Your task to perform on an android device: turn on priority inbox in the gmail app Image 0: 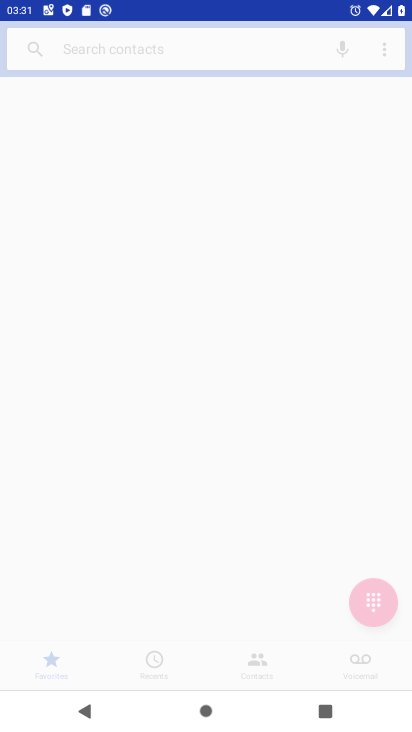
Step 0: drag from (146, 622) to (161, 207)
Your task to perform on an android device: turn on priority inbox in the gmail app Image 1: 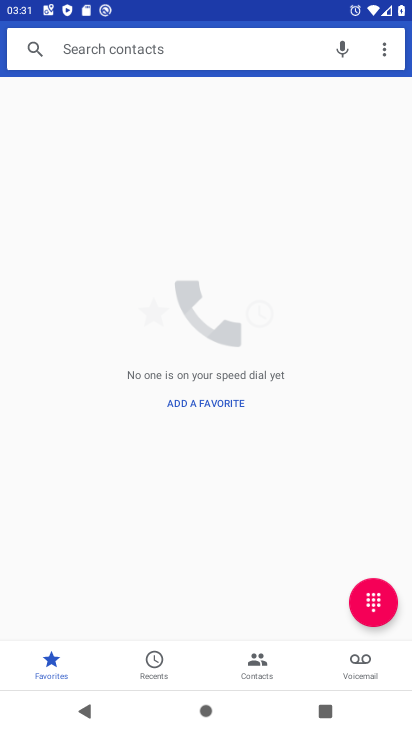
Step 1: press home button
Your task to perform on an android device: turn on priority inbox in the gmail app Image 2: 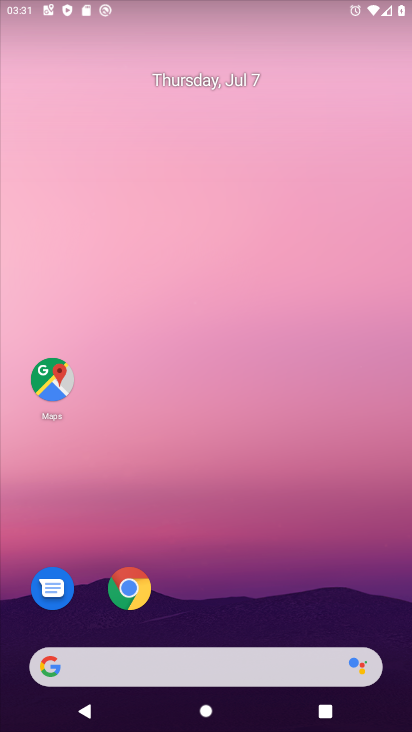
Step 2: drag from (158, 650) to (149, 227)
Your task to perform on an android device: turn on priority inbox in the gmail app Image 3: 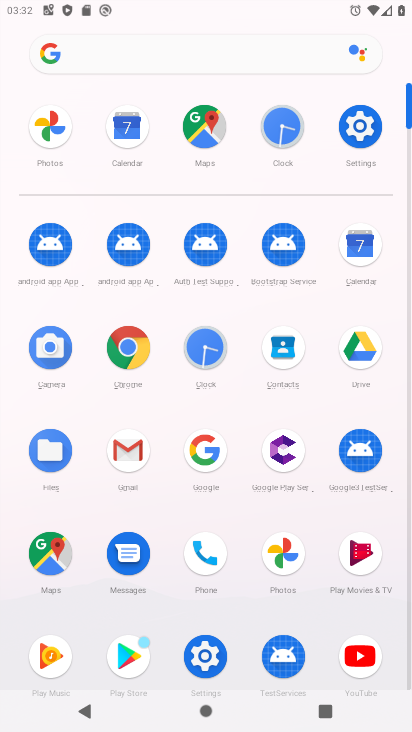
Step 3: click (117, 459)
Your task to perform on an android device: turn on priority inbox in the gmail app Image 4: 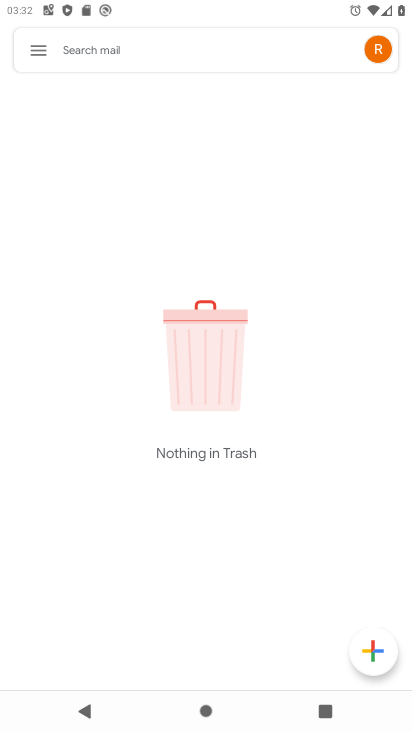
Step 4: click (29, 54)
Your task to perform on an android device: turn on priority inbox in the gmail app Image 5: 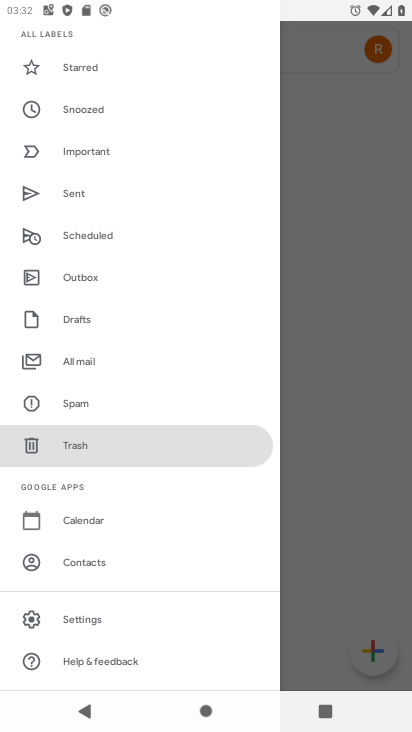
Step 5: click (101, 620)
Your task to perform on an android device: turn on priority inbox in the gmail app Image 6: 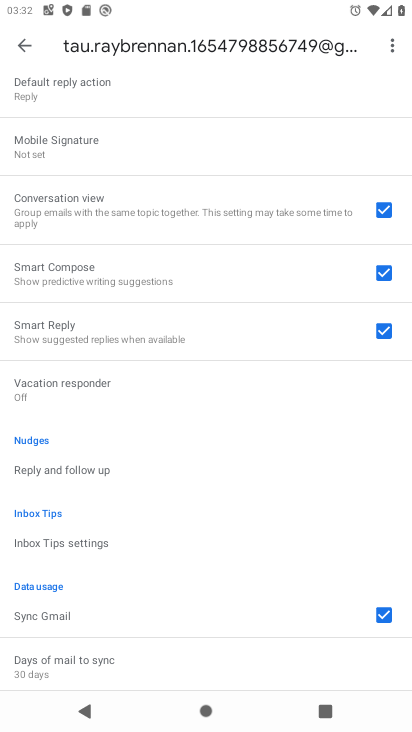
Step 6: click (61, 93)
Your task to perform on an android device: turn on priority inbox in the gmail app Image 7: 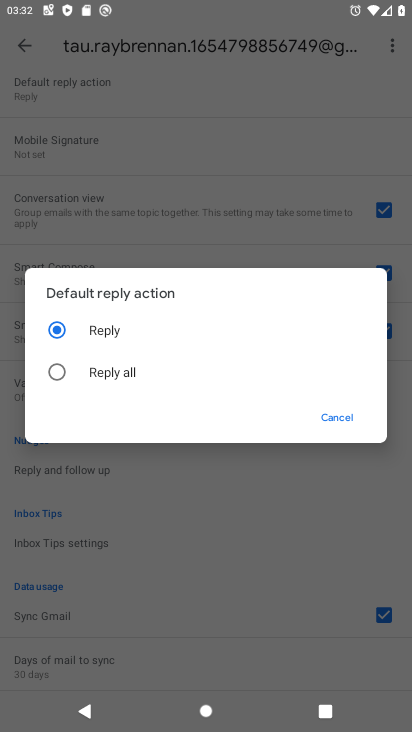
Step 7: click (181, 538)
Your task to perform on an android device: turn on priority inbox in the gmail app Image 8: 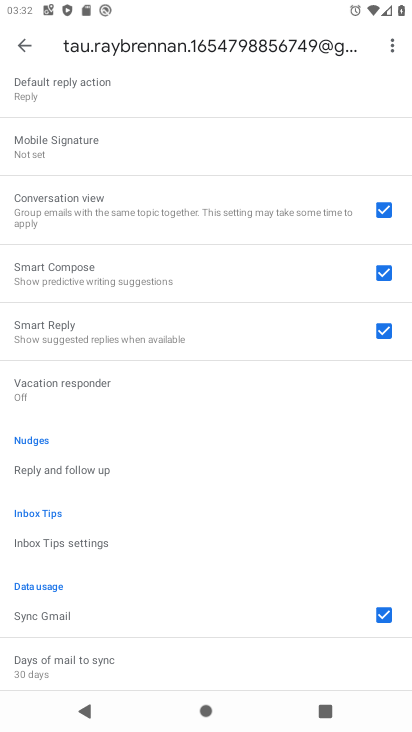
Step 8: drag from (132, 198) to (199, 589)
Your task to perform on an android device: turn on priority inbox in the gmail app Image 9: 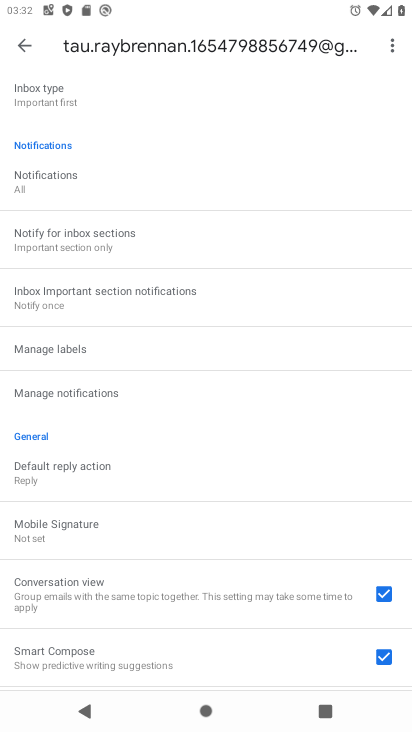
Step 9: click (55, 95)
Your task to perform on an android device: turn on priority inbox in the gmail app Image 10: 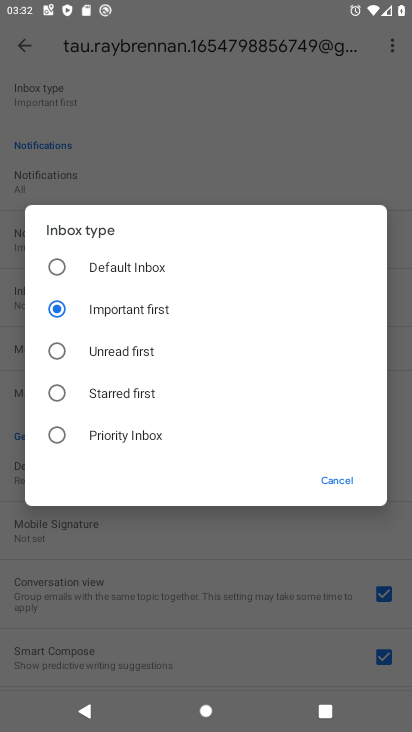
Step 10: click (107, 440)
Your task to perform on an android device: turn on priority inbox in the gmail app Image 11: 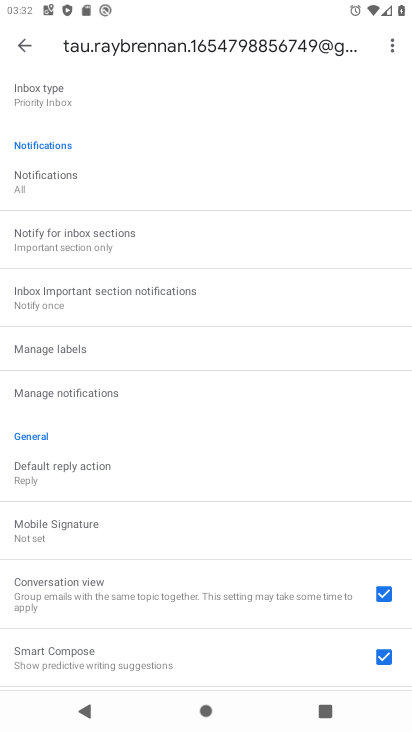
Step 11: task complete